Your task to perform on an android device: When is my next meeting? Image 0: 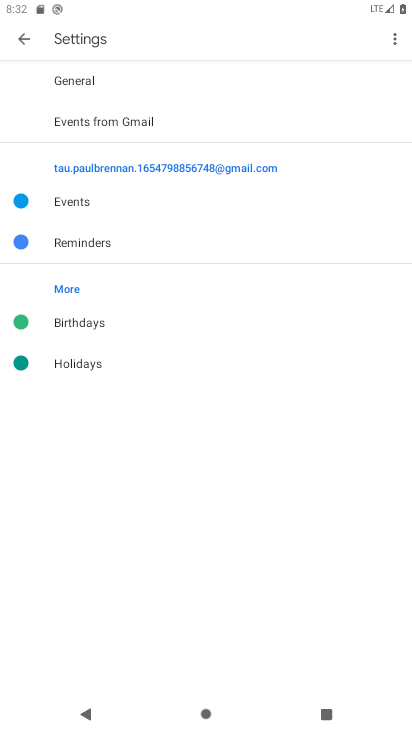
Step 0: press home button
Your task to perform on an android device: When is my next meeting? Image 1: 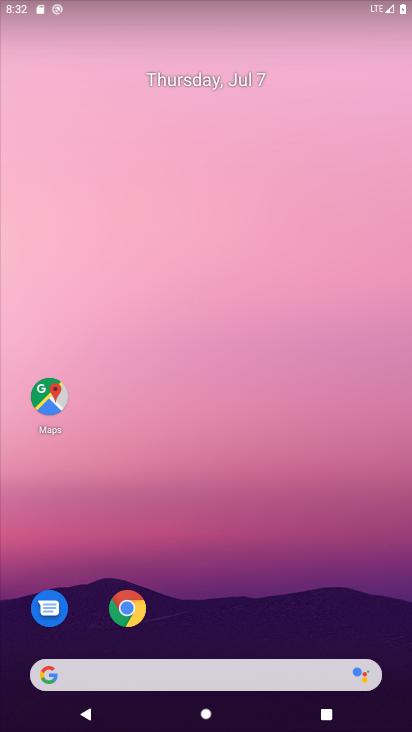
Step 1: drag from (359, 621) to (341, 72)
Your task to perform on an android device: When is my next meeting? Image 2: 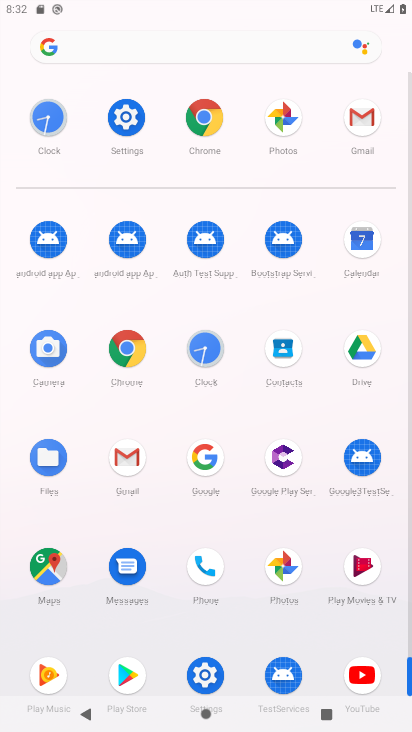
Step 2: click (345, 259)
Your task to perform on an android device: When is my next meeting? Image 3: 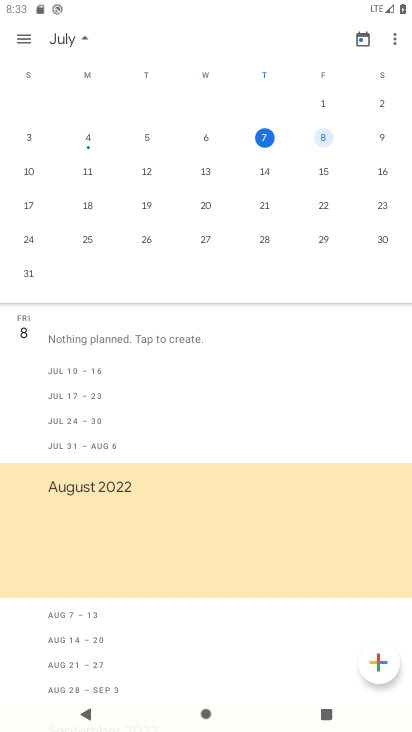
Step 3: task complete